Your task to perform on an android device: Open notification settings Image 0: 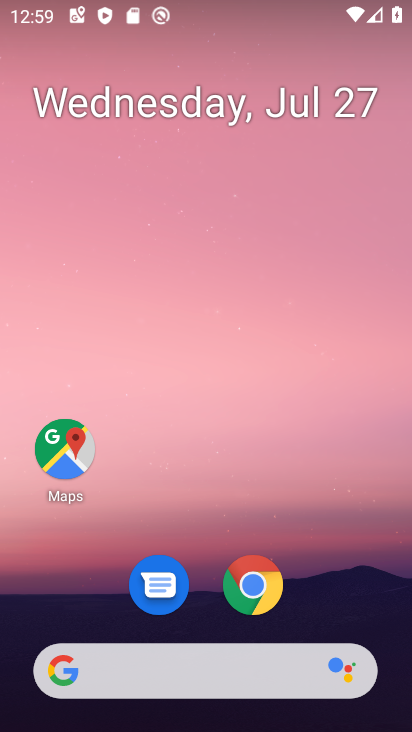
Step 0: drag from (177, 671) to (262, 130)
Your task to perform on an android device: Open notification settings Image 1: 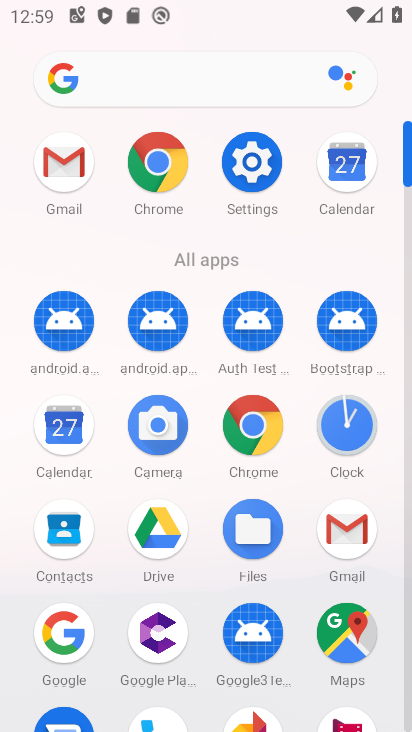
Step 1: click (257, 162)
Your task to perform on an android device: Open notification settings Image 2: 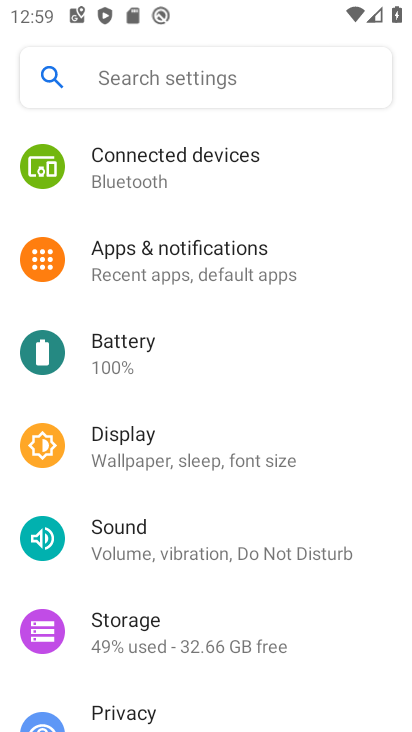
Step 2: click (188, 246)
Your task to perform on an android device: Open notification settings Image 3: 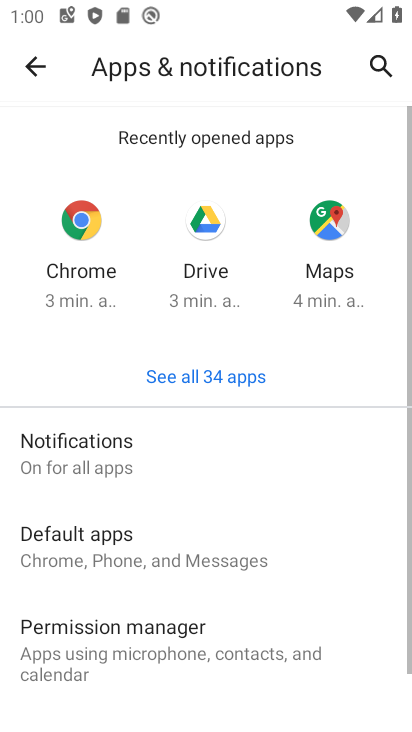
Step 3: click (123, 462)
Your task to perform on an android device: Open notification settings Image 4: 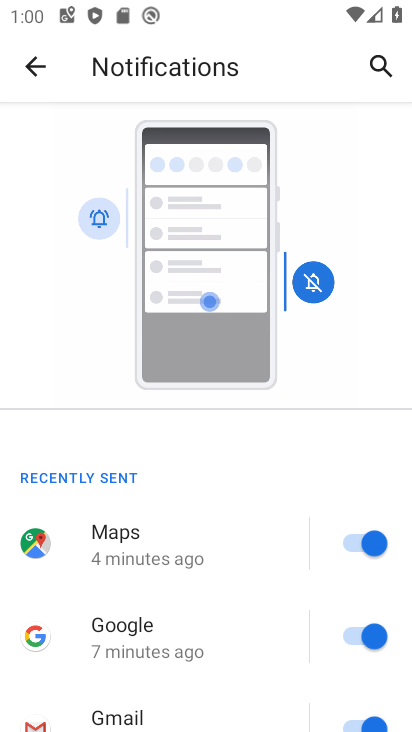
Step 4: task complete